Your task to perform on an android device: Open the calendar and show me this week's events Image 0: 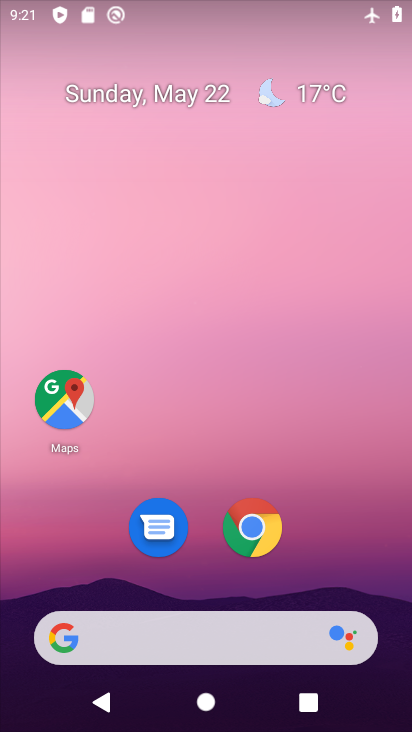
Step 0: drag from (335, 545) to (217, 26)
Your task to perform on an android device: Open the calendar and show me this week's events Image 1: 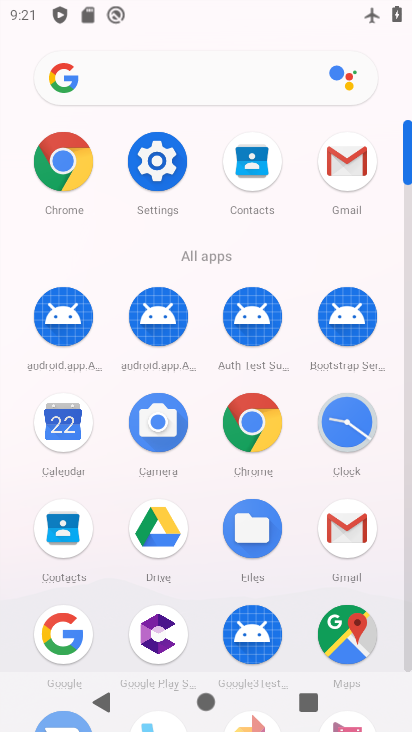
Step 1: click (67, 417)
Your task to perform on an android device: Open the calendar and show me this week's events Image 2: 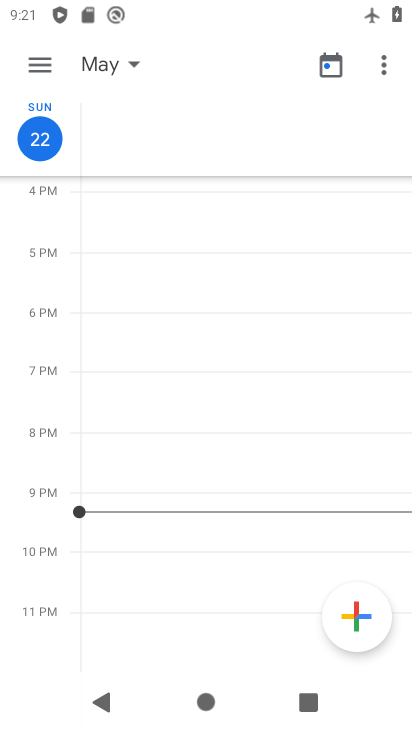
Step 2: click (42, 59)
Your task to perform on an android device: Open the calendar and show me this week's events Image 3: 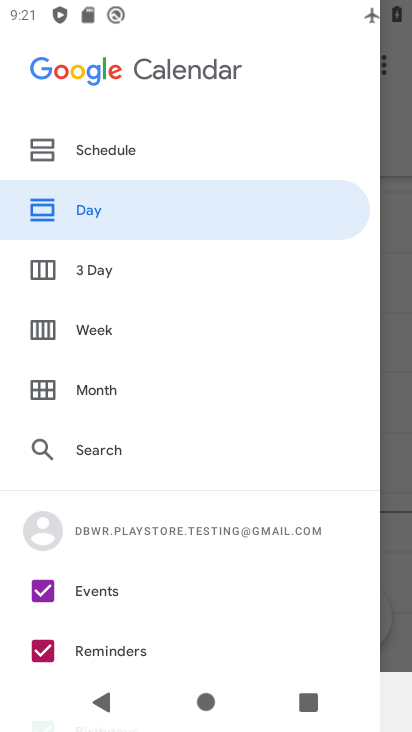
Step 3: click (108, 334)
Your task to perform on an android device: Open the calendar and show me this week's events Image 4: 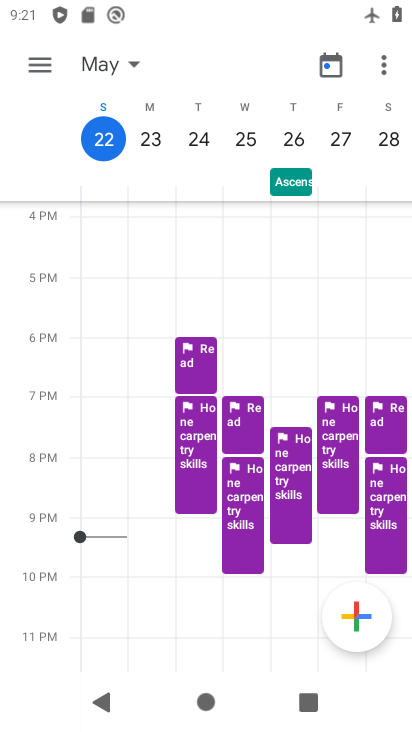
Step 4: task complete